Your task to perform on an android device: Open the map Image 0: 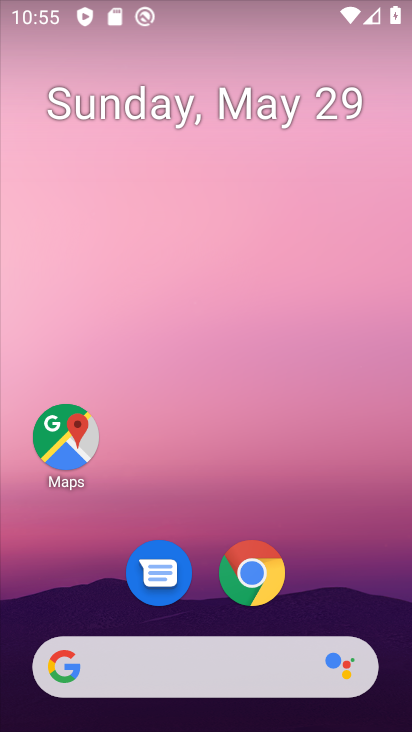
Step 0: click (61, 426)
Your task to perform on an android device: Open the map Image 1: 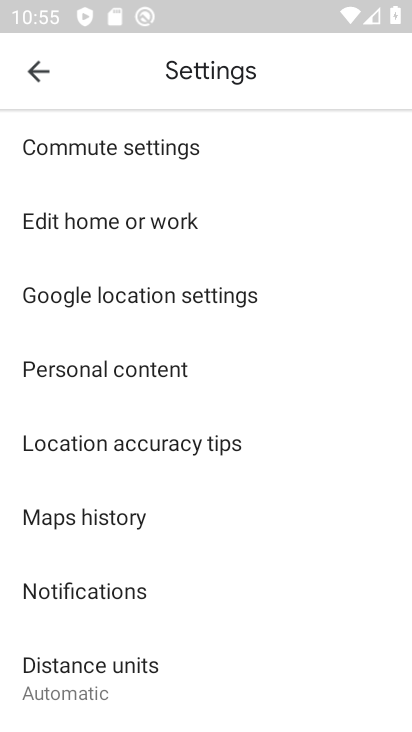
Step 1: task complete